Your task to perform on an android device: read, delete, or share a saved page in the chrome app Image 0: 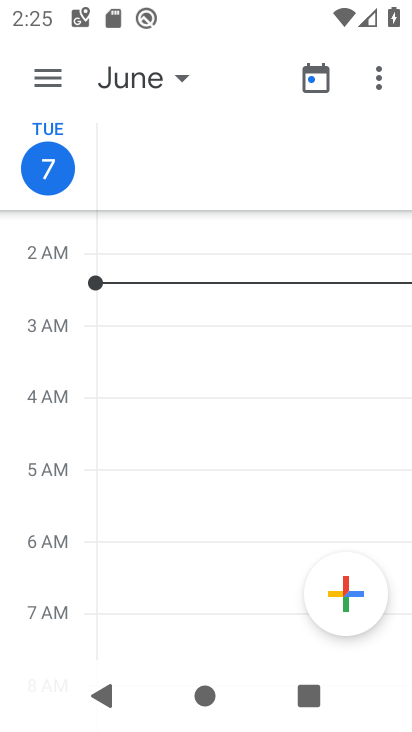
Step 0: press home button
Your task to perform on an android device: read, delete, or share a saved page in the chrome app Image 1: 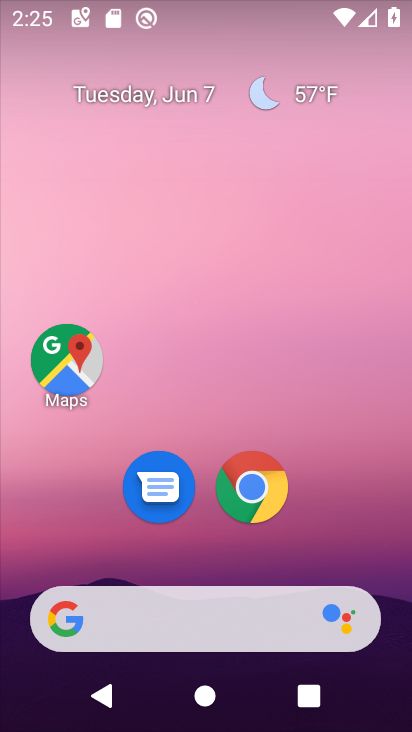
Step 1: click (272, 480)
Your task to perform on an android device: read, delete, or share a saved page in the chrome app Image 2: 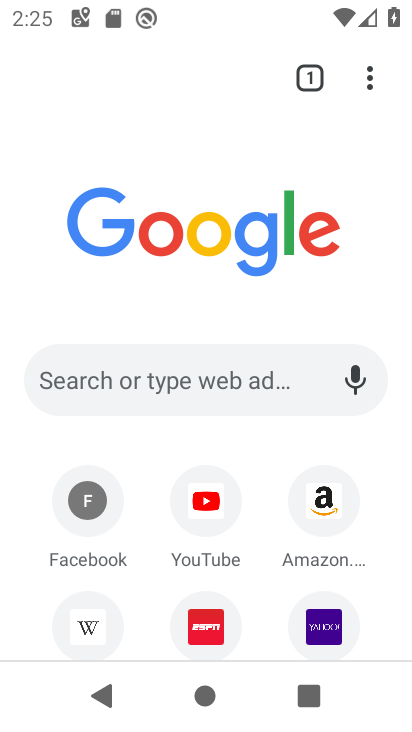
Step 2: task complete